Your task to perform on an android device: set the stopwatch Image 0: 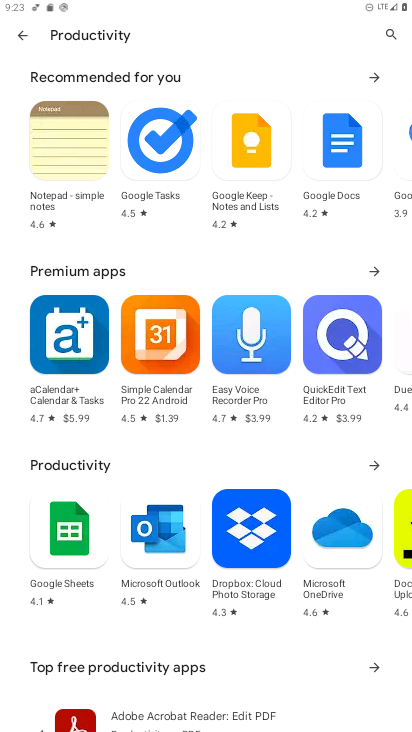
Step 0: press home button
Your task to perform on an android device: set the stopwatch Image 1: 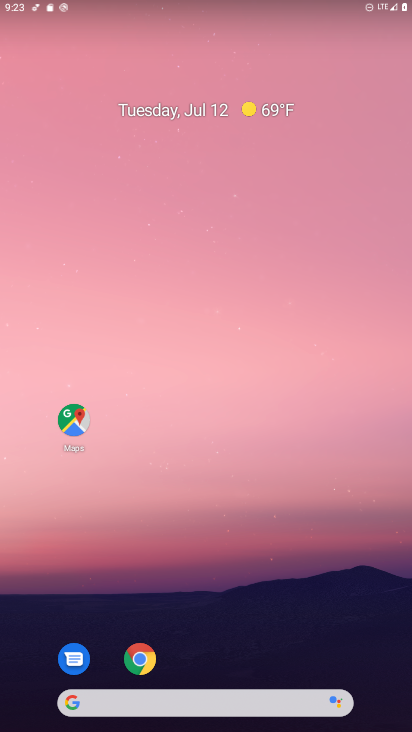
Step 1: drag from (227, 687) to (229, 607)
Your task to perform on an android device: set the stopwatch Image 2: 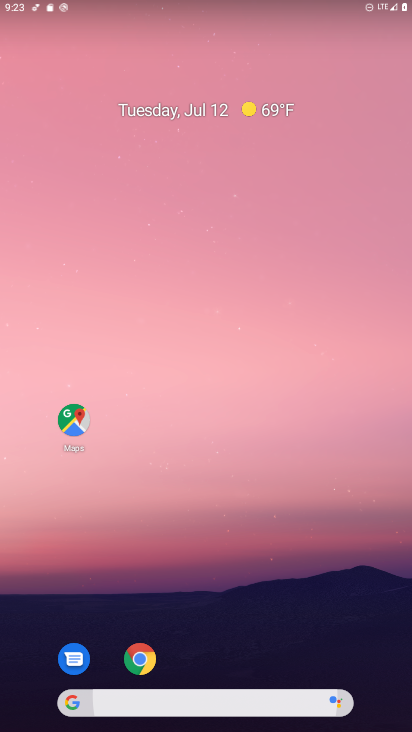
Step 2: drag from (227, 220) to (216, 123)
Your task to perform on an android device: set the stopwatch Image 3: 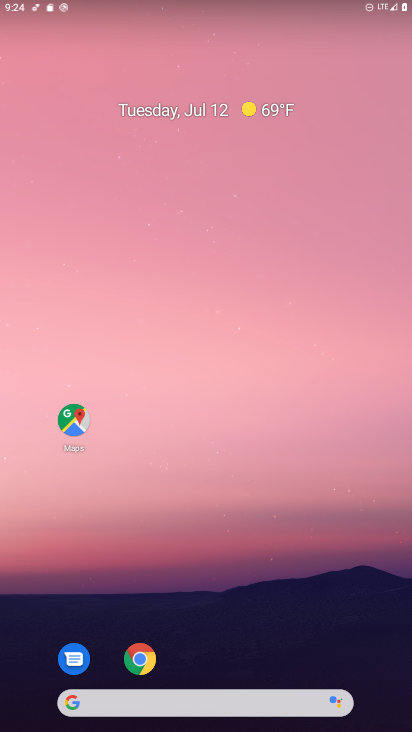
Step 3: drag from (221, 700) to (221, 87)
Your task to perform on an android device: set the stopwatch Image 4: 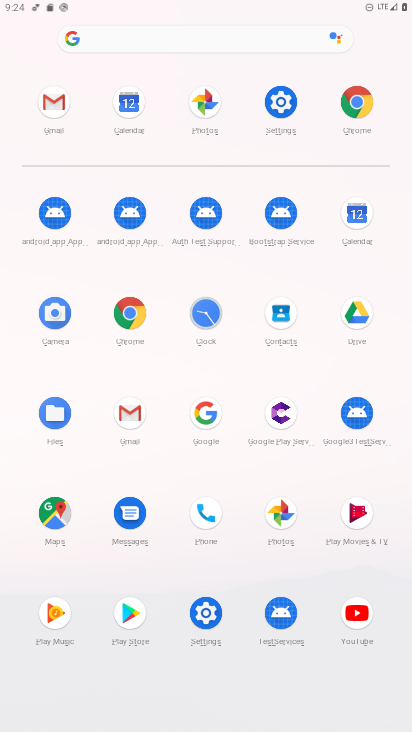
Step 4: click (211, 319)
Your task to perform on an android device: set the stopwatch Image 5: 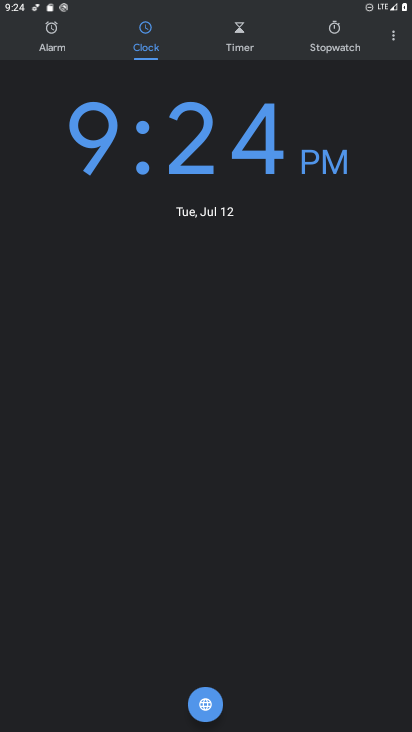
Step 5: click (339, 29)
Your task to perform on an android device: set the stopwatch Image 6: 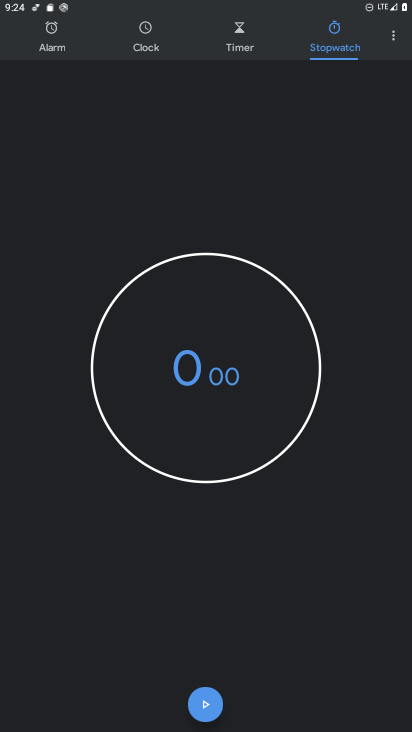
Step 6: click (210, 354)
Your task to perform on an android device: set the stopwatch Image 7: 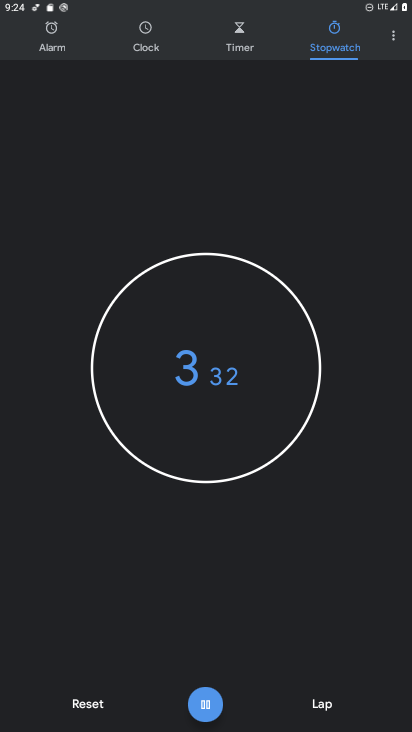
Step 7: type "4566"
Your task to perform on an android device: set the stopwatch Image 8: 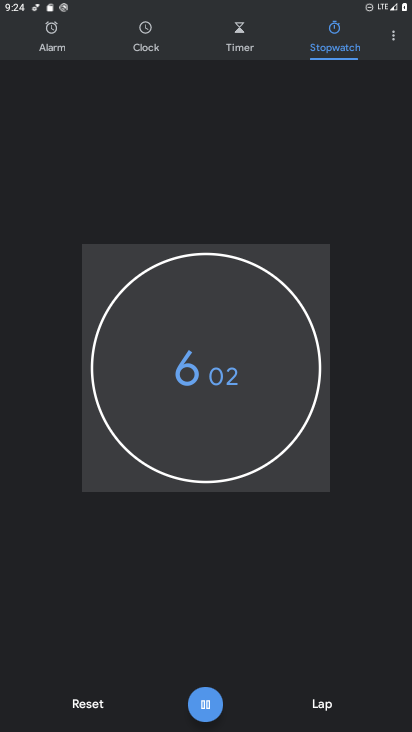
Step 8: task complete